Your task to perform on an android device: open a bookmark in the chrome app Image 0: 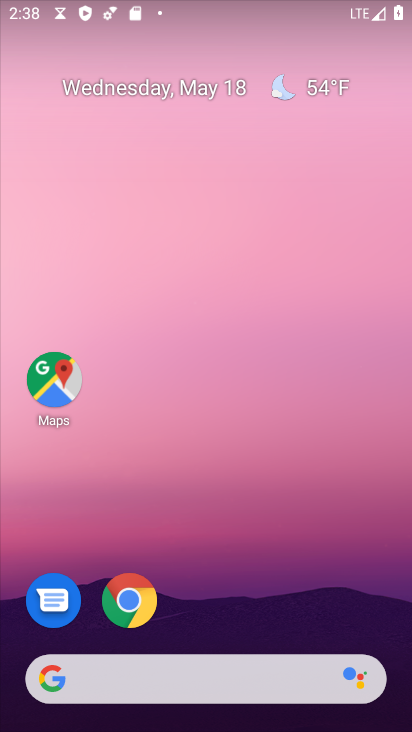
Step 0: press home button
Your task to perform on an android device: open a bookmark in the chrome app Image 1: 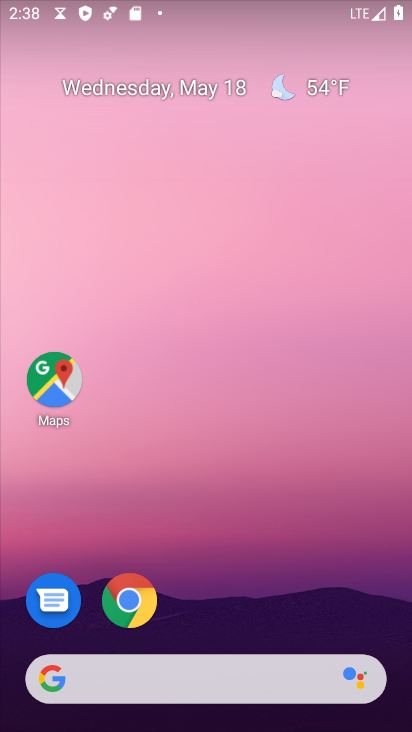
Step 1: click (136, 611)
Your task to perform on an android device: open a bookmark in the chrome app Image 2: 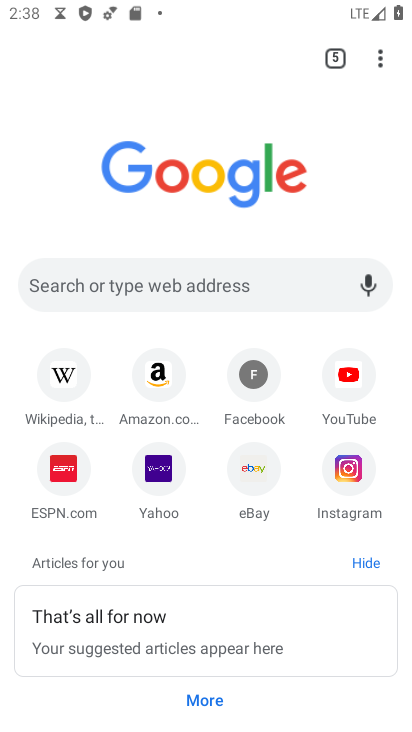
Step 2: task complete